Your task to perform on an android device: Open Chrome and go to settings Image 0: 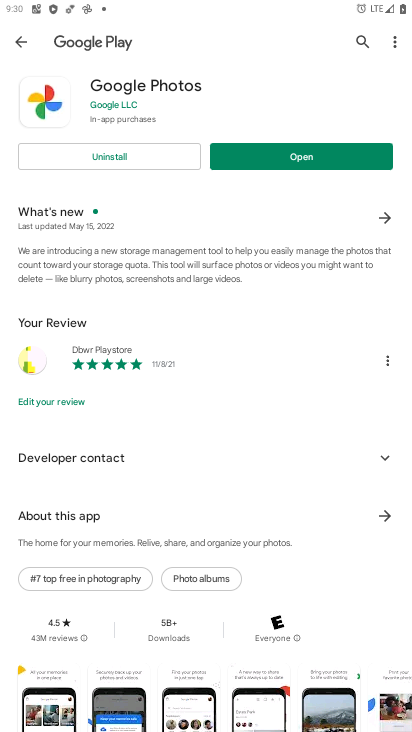
Step 0: press home button
Your task to perform on an android device: Open Chrome and go to settings Image 1: 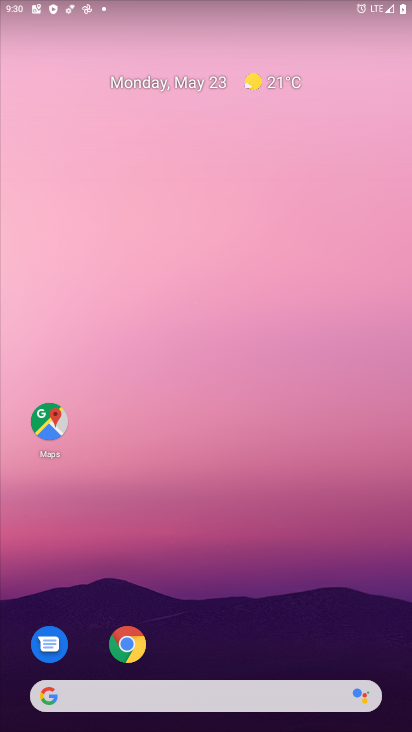
Step 1: click (128, 649)
Your task to perform on an android device: Open Chrome and go to settings Image 2: 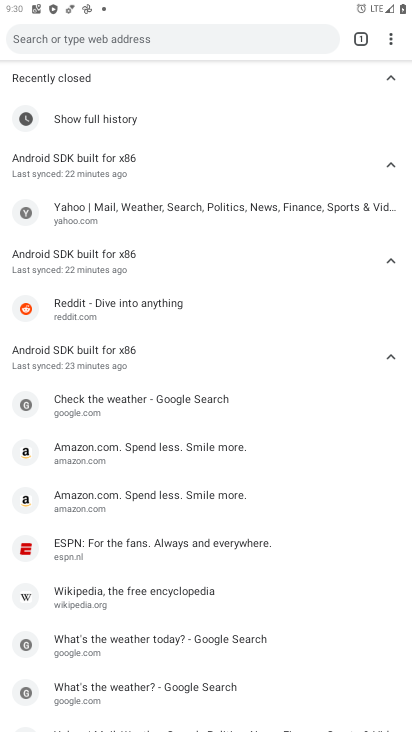
Step 2: click (390, 39)
Your task to perform on an android device: Open Chrome and go to settings Image 3: 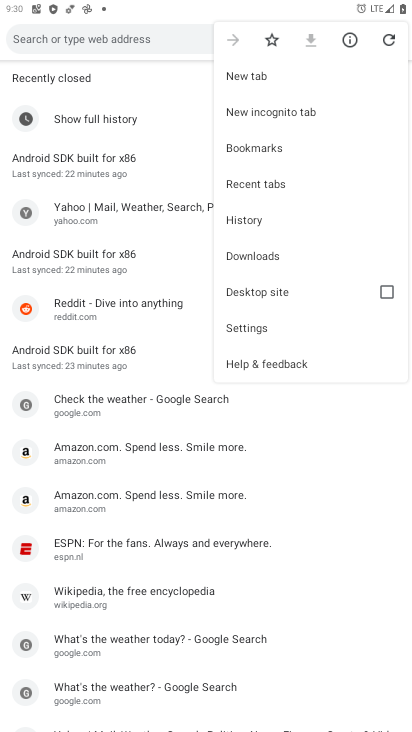
Step 3: click (291, 338)
Your task to perform on an android device: Open Chrome and go to settings Image 4: 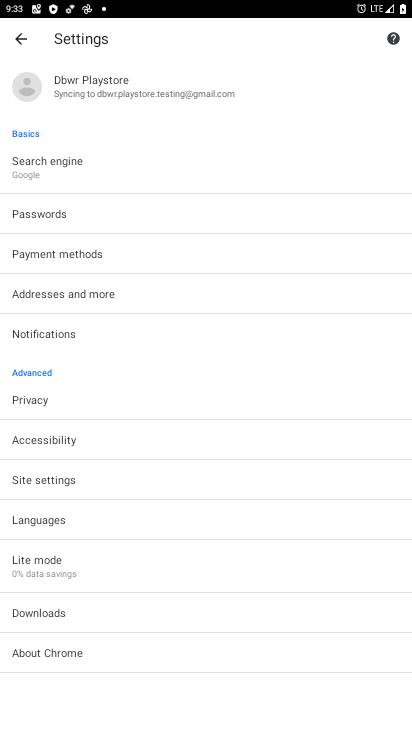
Step 4: task complete